Your task to perform on an android device: change the clock style Image 0: 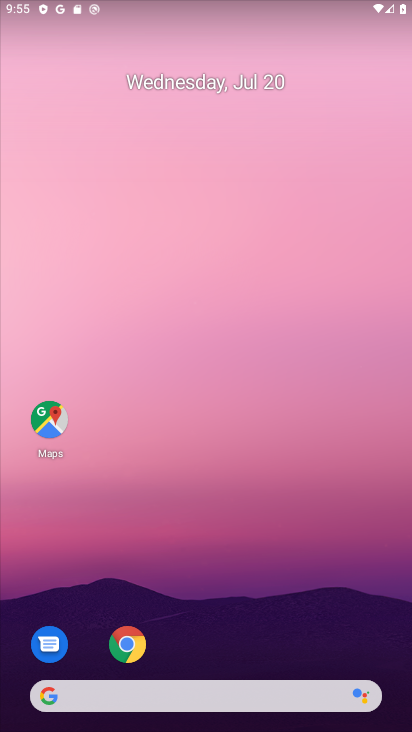
Step 0: drag from (244, 527) to (246, 154)
Your task to perform on an android device: change the clock style Image 1: 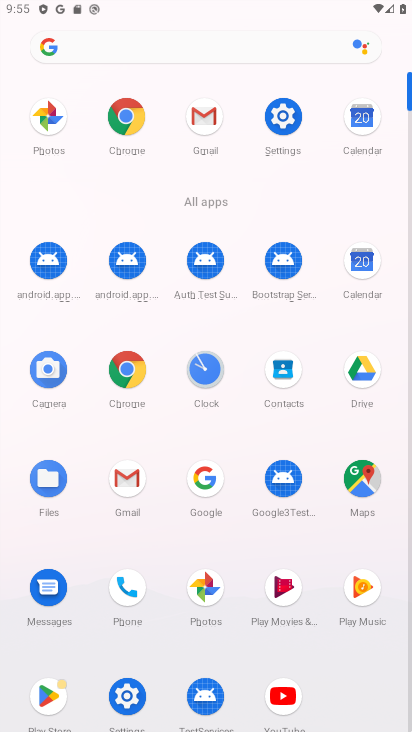
Step 1: click (210, 374)
Your task to perform on an android device: change the clock style Image 2: 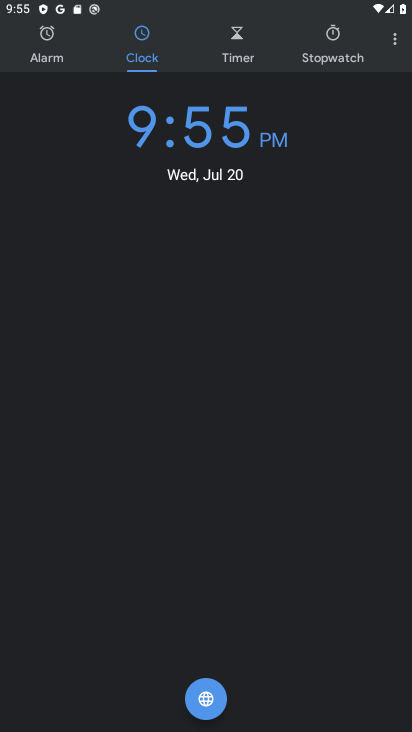
Step 2: click (394, 40)
Your task to perform on an android device: change the clock style Image 3: 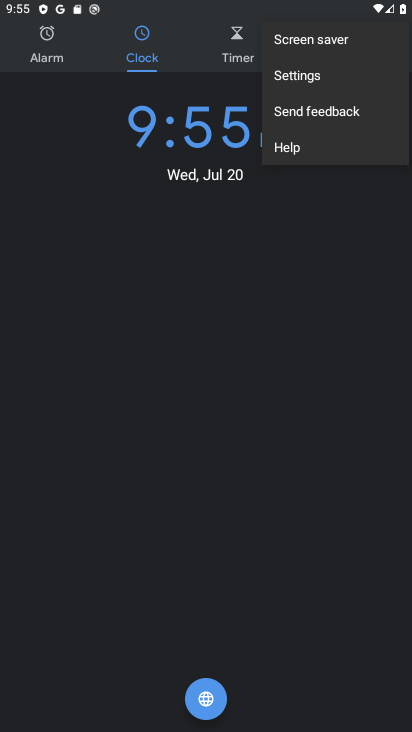
Step 3: click (320, 81)
Your task to perform on an android device: change the clock style Image 4: 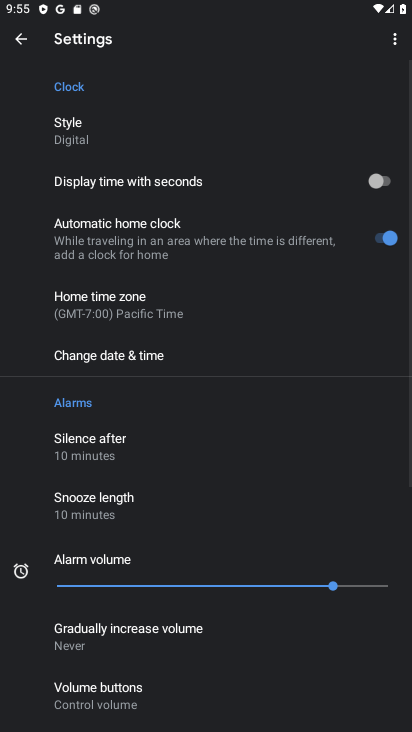
Step 4: click (62, 132)
Your task to perform on an android device: change the clock style Image 5: 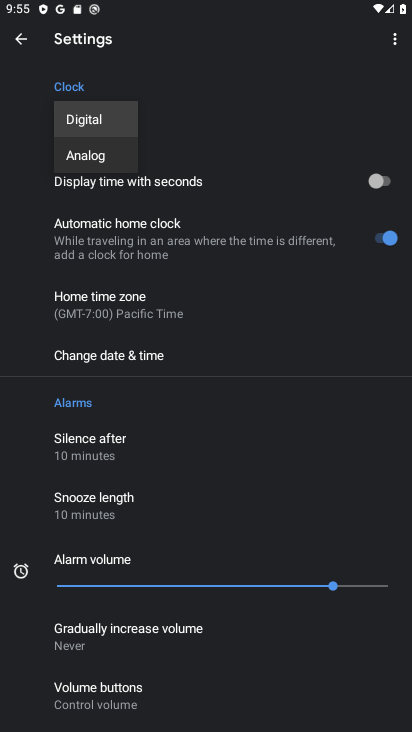
Step 5: click (72, 158)
Your task to perform on an android device: change the clock style Image 6: 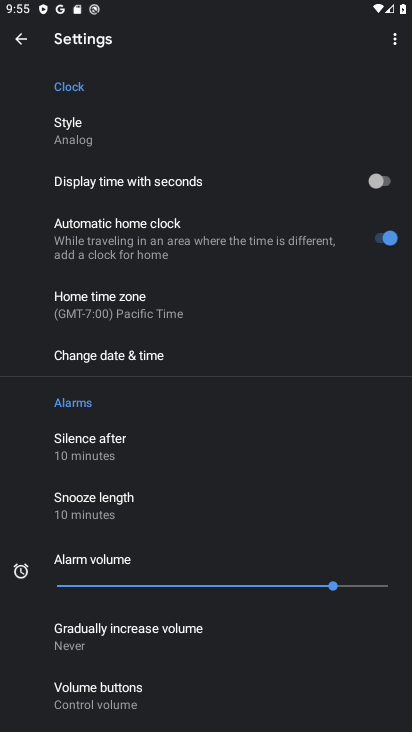
Step 6: task complete